Your task to perform on an android device: toggle notification dots Image 0: 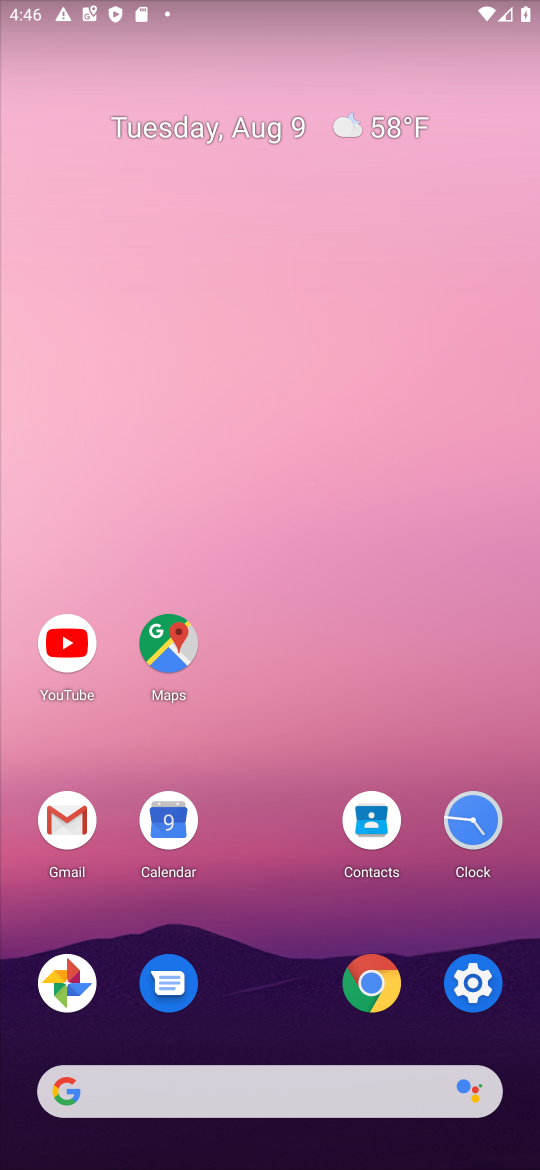
Step 0: click (479, 983)
Your task to perform on an android device: toggle notification dots Image 1: 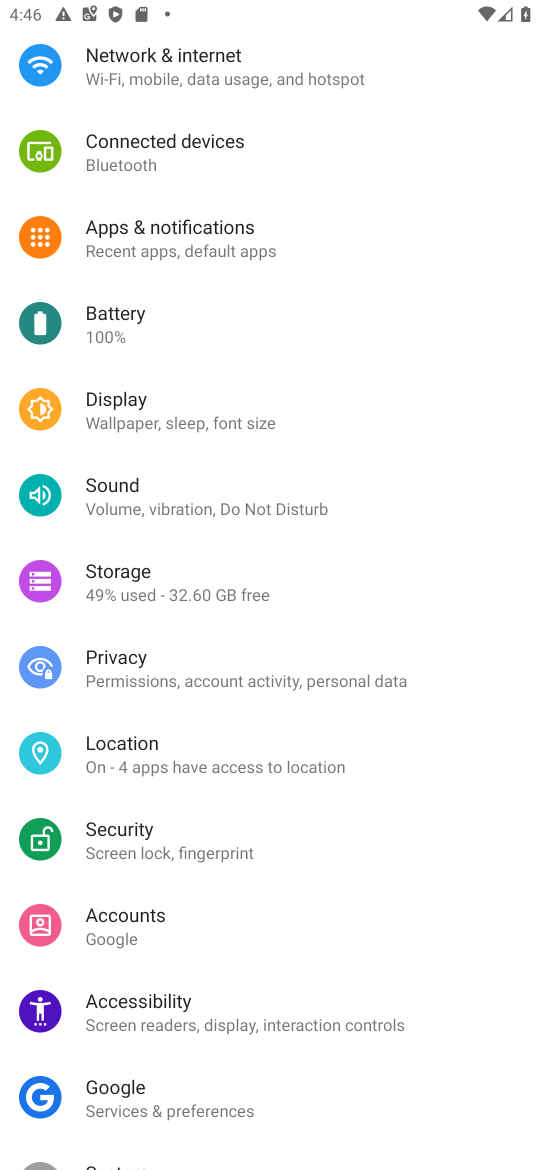
Step 1: click (163, 218)
Your task to perform on an android device: toggle notification dots Image 2: 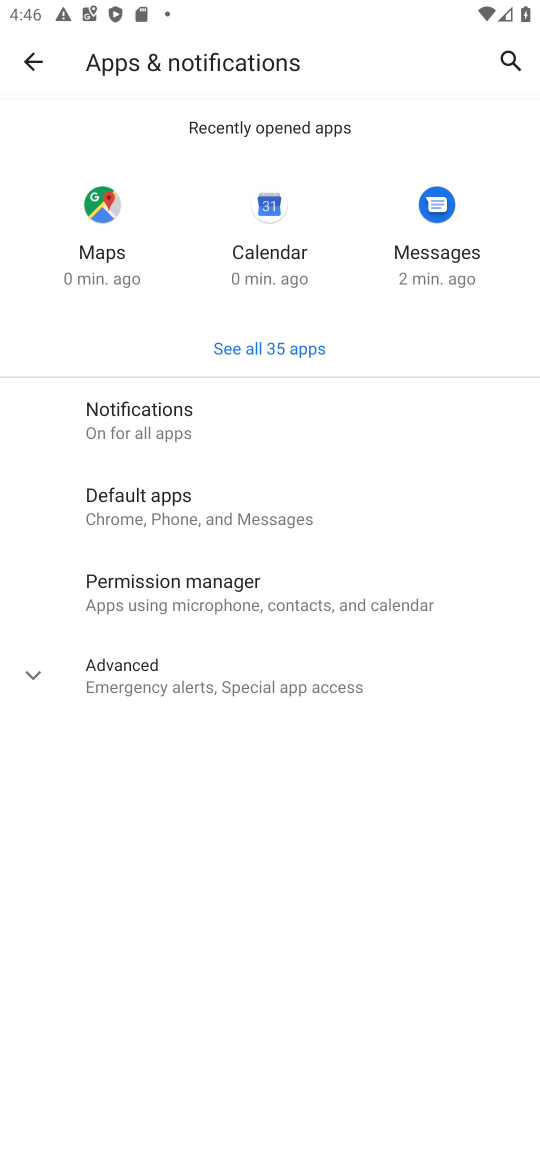
Step 2: click (124, 407)
Your task to perform on an android device: toggle notification dots Image 3: 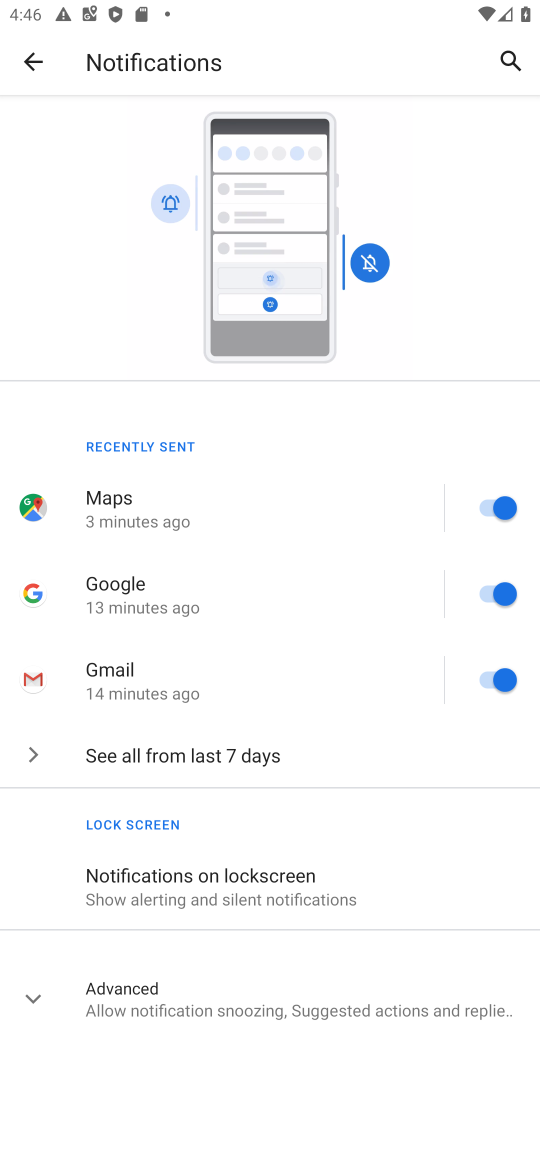
Step 3: click (31, 991)
Your task to perform on an android device: toggle notification dots Image 4: 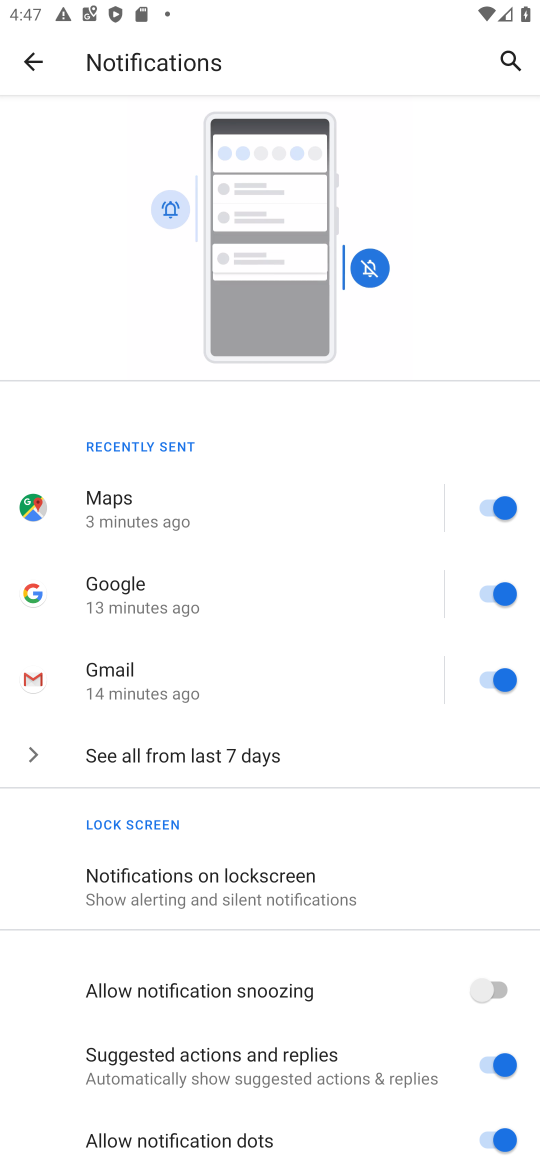
Step 4: click (501, 1144)
Your task to perform on an android device: toggle notification dots Image 5: 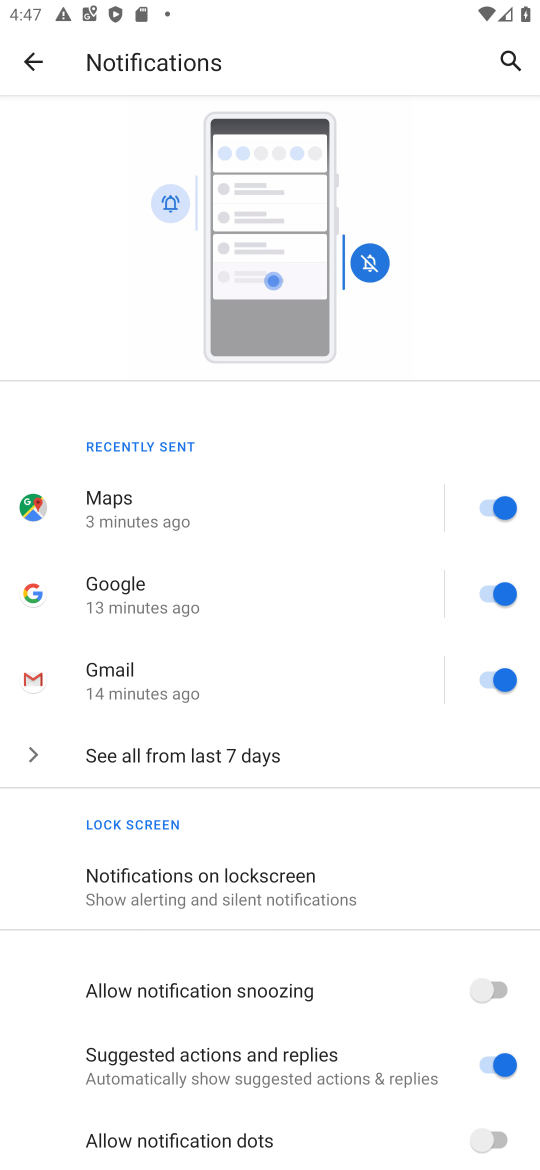
Step 5: task complete